Your task to perform on an android device: Open the calendar app, open the side menu, and click the "Day" option Image 0: 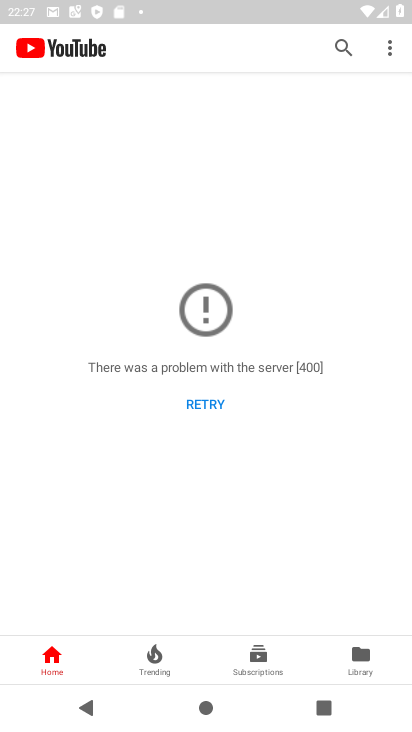
Step 0: press home button
Your task to perform on an android device: Open the calendar app, open the side menu, and click the "Day" option Image 1: 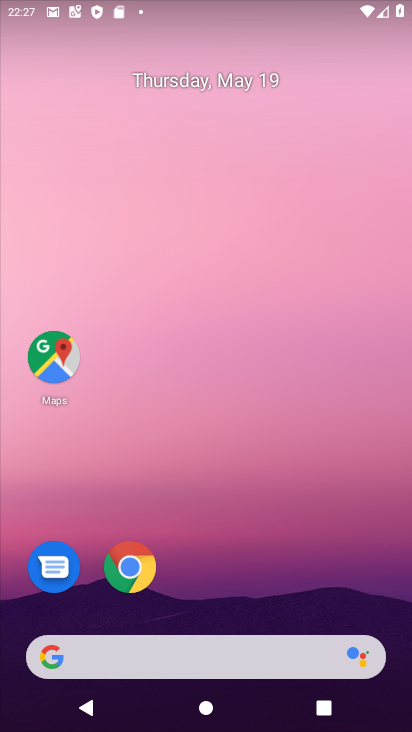
Step 1: drag from (219, 599) to (244, 85)
Your task to perform on an android device: Open the calendar app, open the side menu, and click the "Day" option Image 2: 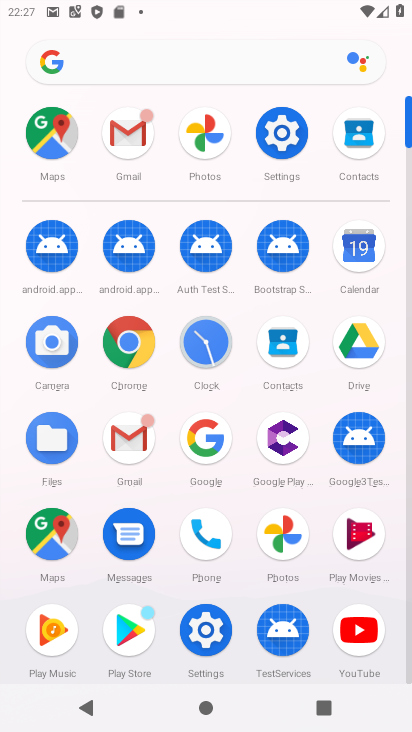
Step 2: click (364, 248)
Your task to perform on an android device: Open the calendar app, open the side menu, and click the "Day" option Image 3: 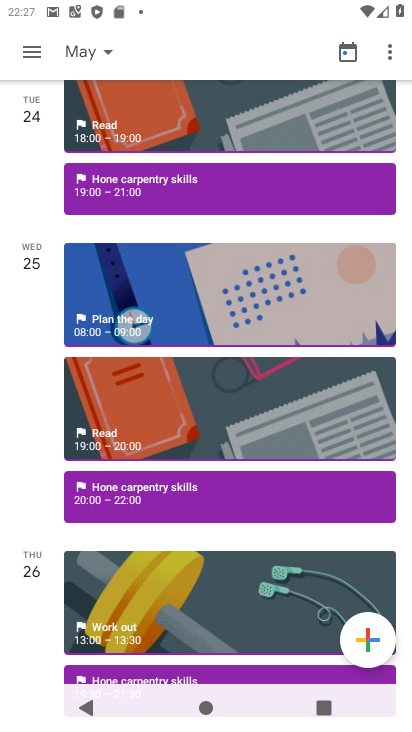
Step 3: click (31, 51)
Your task to perform on an android device: Open the calendar app, open the side menu, and click the "Day" option Image 4: 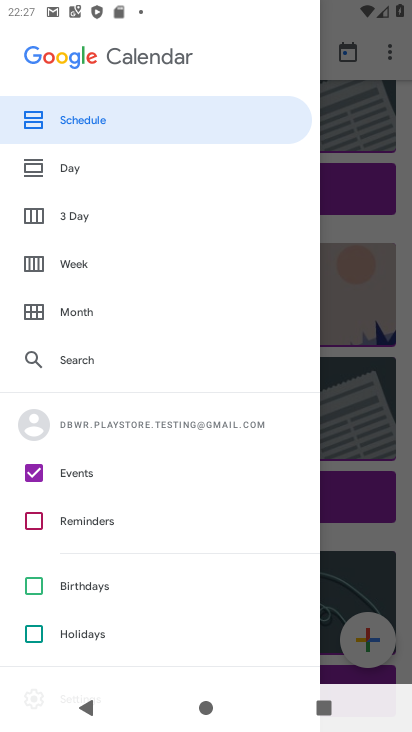
Step 4: click (83, 167)
Your task to perform on an android device: Open the calendar app, open the side menu, and click the "Day" option Image 5: 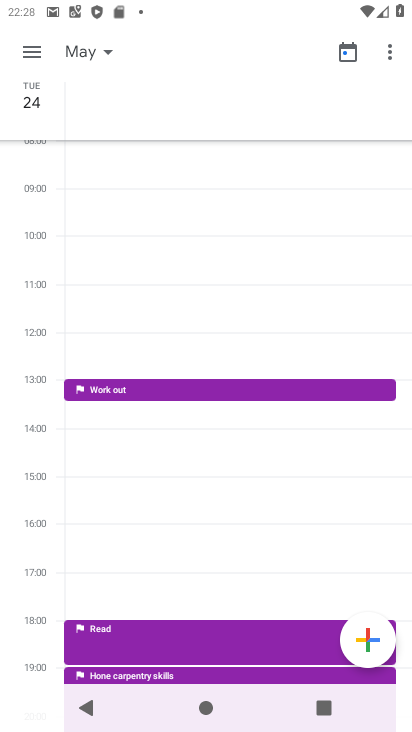
Step 5: click (34, 53)
Your task to perform on an android device: Open the calendar app, open the side menu, and click the "Day" option Image 6: 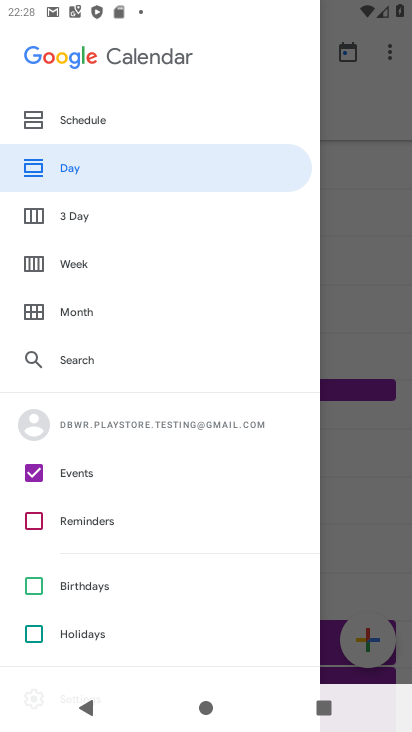
Step 6: click (67, 165)
Your task to perform on an android device: Open the calendar app, open the side menu, and click the "Day" option Image 7: 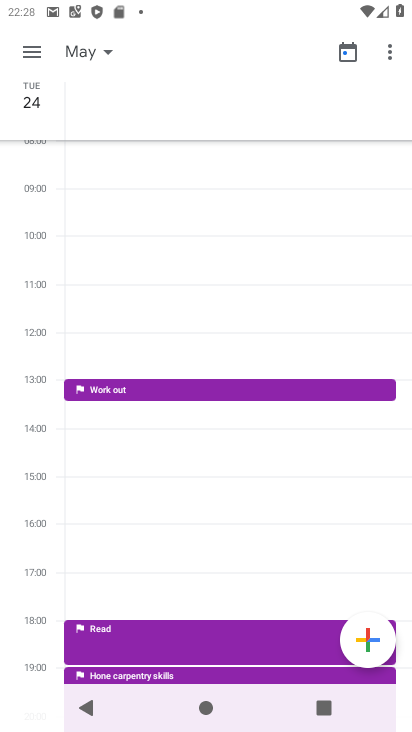
Step 7: task complete